Your task to perform on an android device: How do I get to the nearest Home Depot? Image 0: 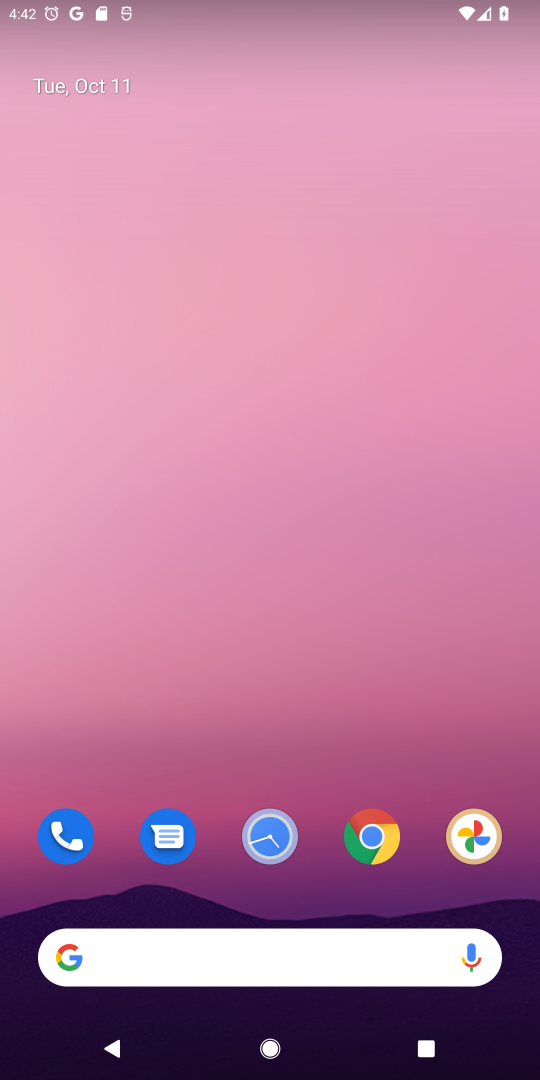
Step 0: click (194, 945)
Your task to perform on an android device: How do I get to the nearest Home Depot? Image 1: 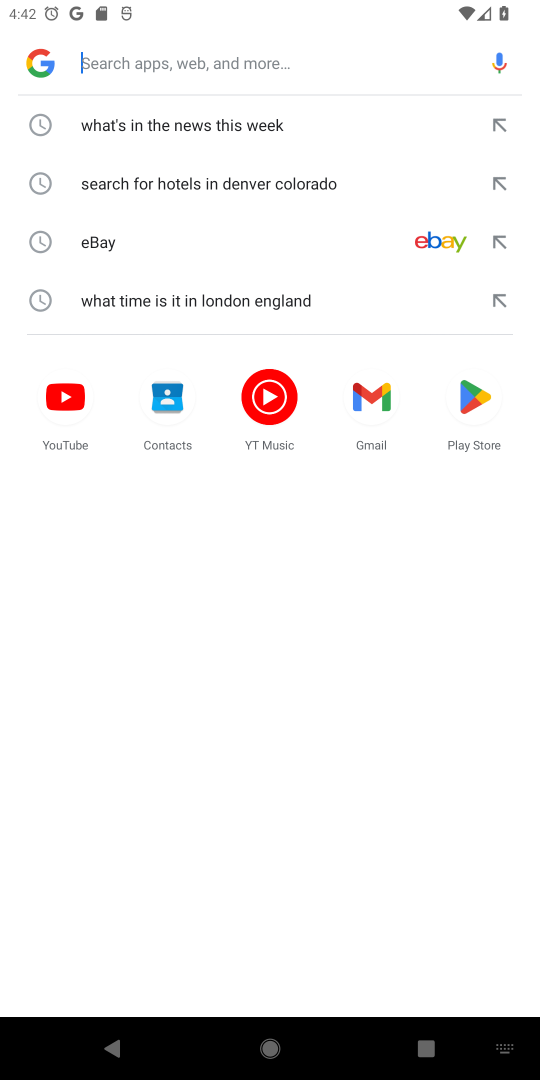
Step 1: type "How do I get to the nearest Home Depot?"
Your task to perform on an android device: How do I get to the nearest Home Depot? Image 2: 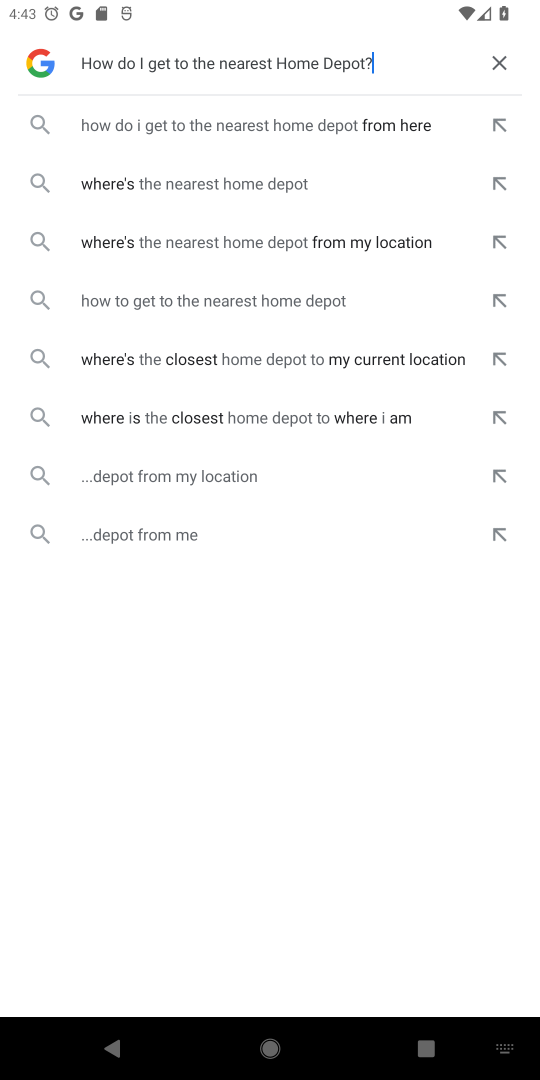
Step 2: click (163, 118)
Your task to perform on an android device: How do I get to the nearest Home Depot? Image 3: 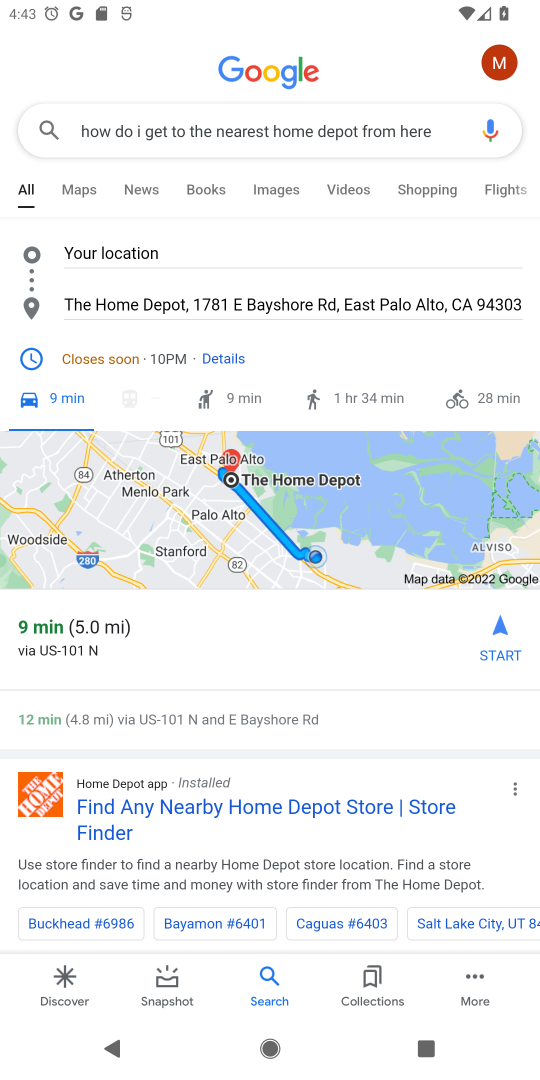
Step 3: task complete